Your task to perform on an android device: Open Youtube and go to "Your channel" Image 0: 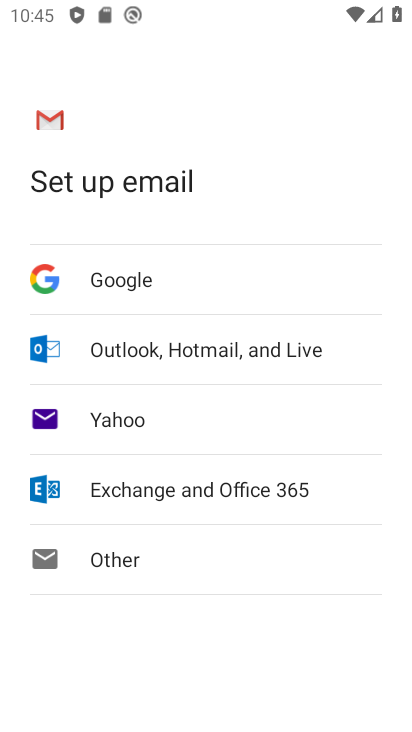
Step 0: press back button
Your task to perform on an android device: Open Youtube and go to "Your channel" Image 1: 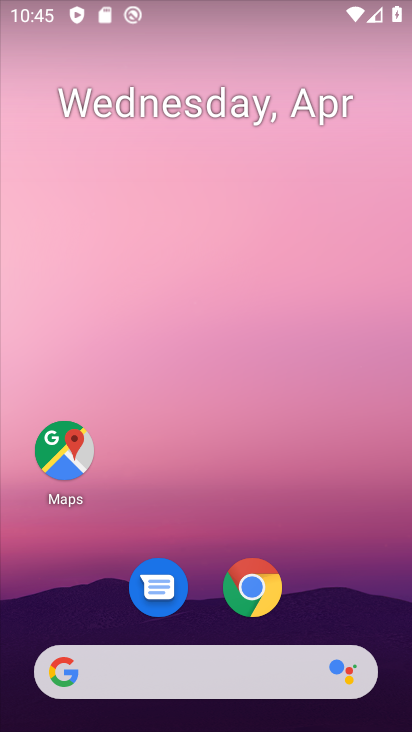
Step 1: drag from (246, 466) to (315, 17)
Your task to perform on an android device: Open Youtube and go to "Your channel" Image 2: 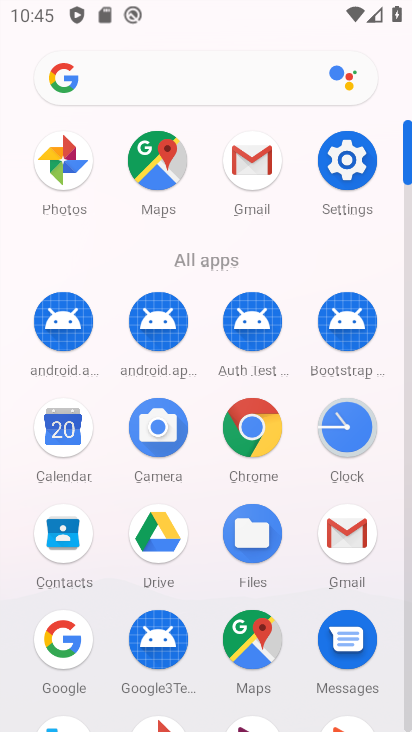
Step 2: drag from (174, 616) to (290, 51)
Your task to perform on an android device: Open Youtube and go to "Your channel" Image 3: 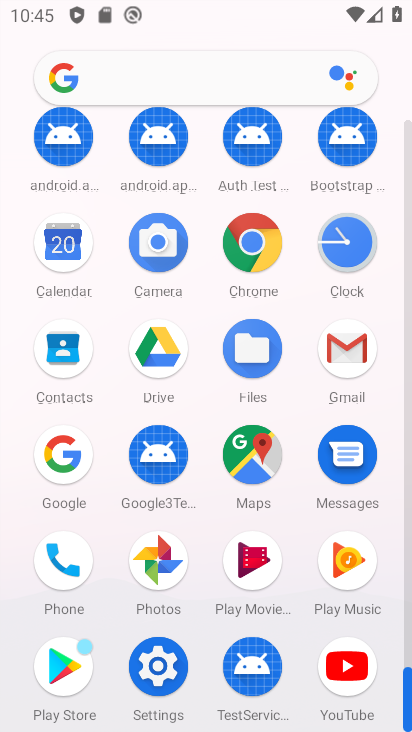
Step 3: click (345, 667)
Your task to perform on an android device: Open Youtube and go to "Your channel" Image 4: 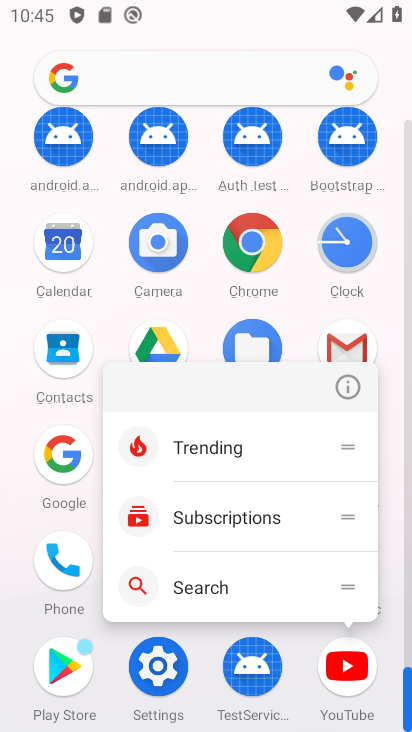
Step 4: click (359, 670)
Your task to perform on an android device: Open Youtube and go to "Your channel" Image 5: 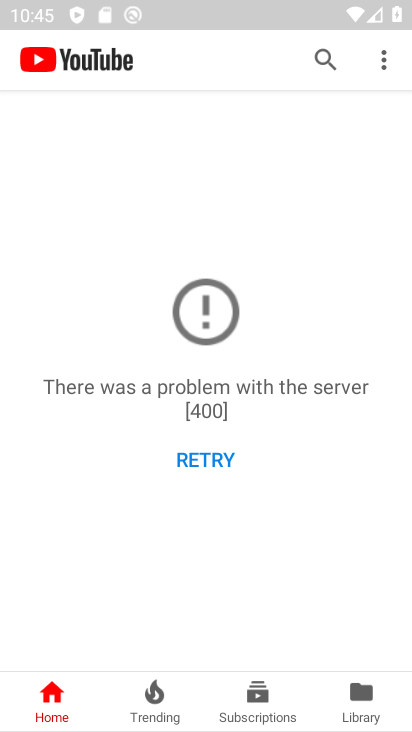
Step 5: click (350, 700)
Your task to perform on an android device: Open Youtube and go to "Your channel" Image 6: 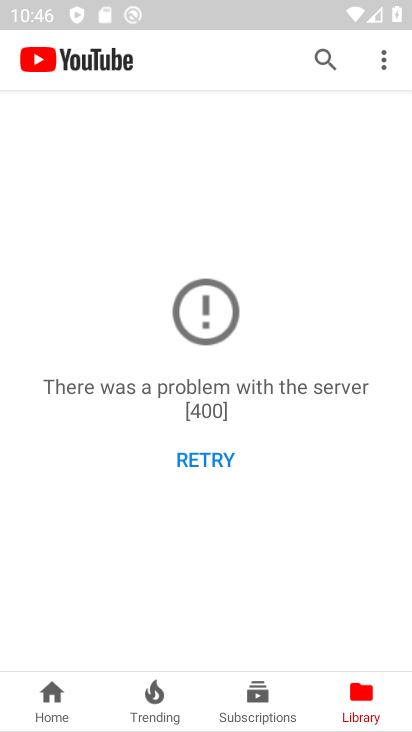
Step 6: task complete